Your task to perform on an android device: toggle javascript in the chrome app Image 0: 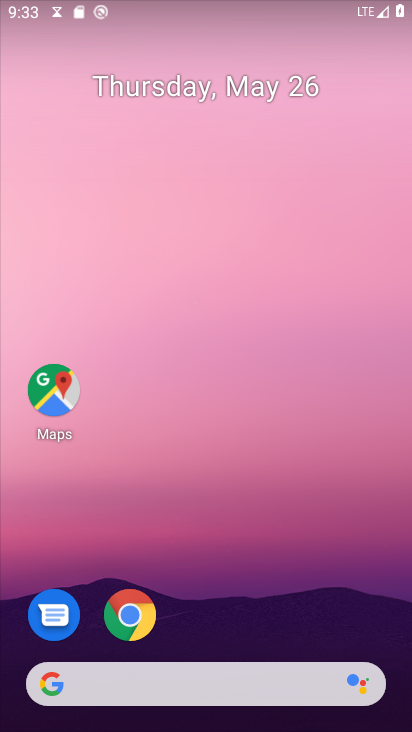
Step 0: click (129, 609)
Your task to perform on an android device: toggle javascript in the chrome app Image 1: 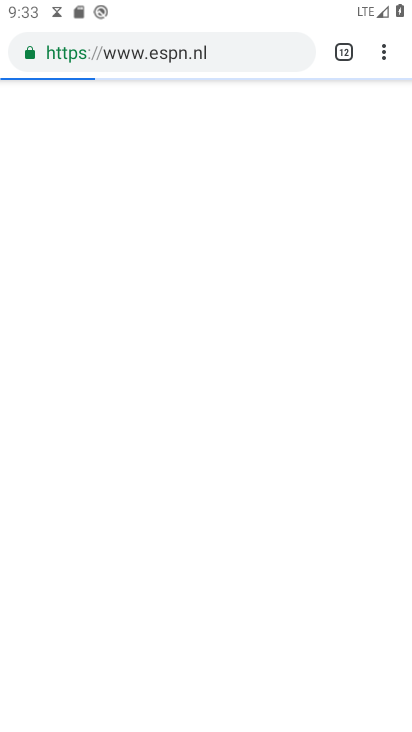
Step 1: click (379, 47)
Your task to perform on an android device: toggle javascript in the chrome app Image 2: 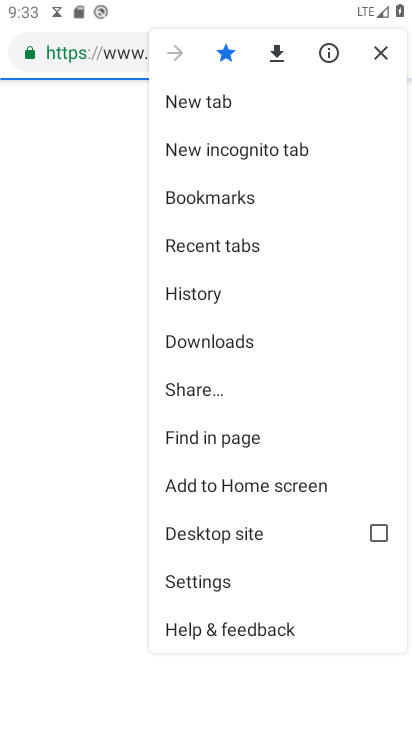
Step 2: click (220, 572)
Your task to perform on an android device: toggle javascript in the chrome app Image 3: 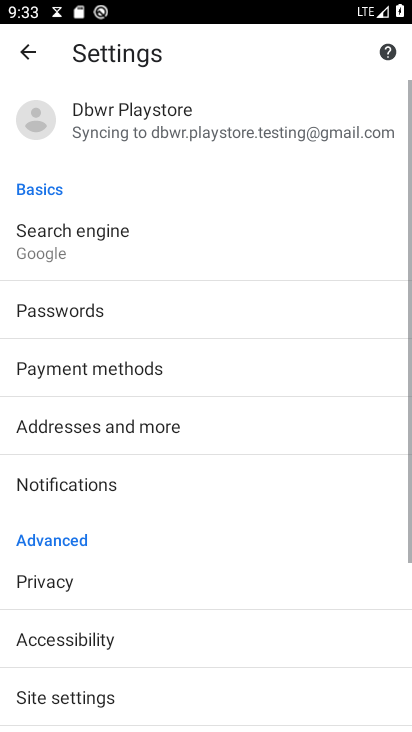
Step 3: drag from (191, 631) to (173, 533)
Your task to perform on an android device: toggle javascript in the chrome app Image 4: 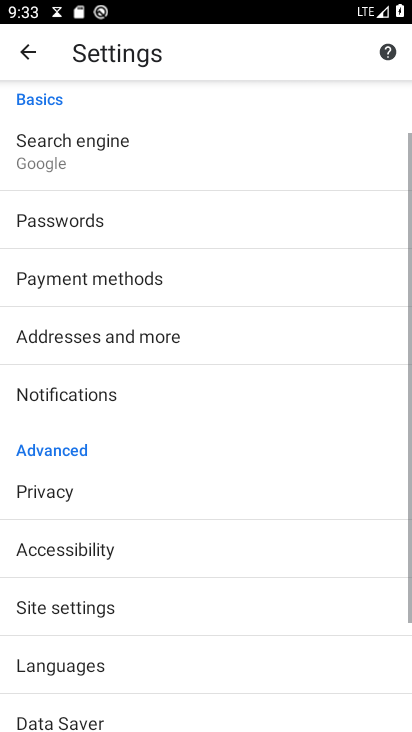
Step 4: click (87, 687)
Your task to perform on an android device: toggle javascript in the chrome app Image 5: 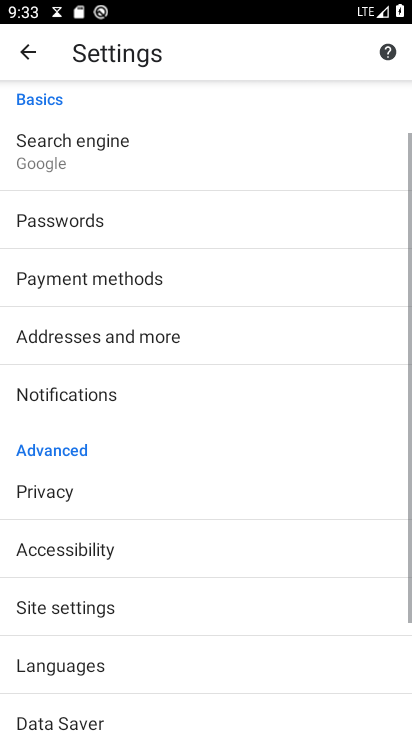
Step 5: click (118, 600)
Your task to perform on an android device: toggle javascript in the chrome app Image 6: 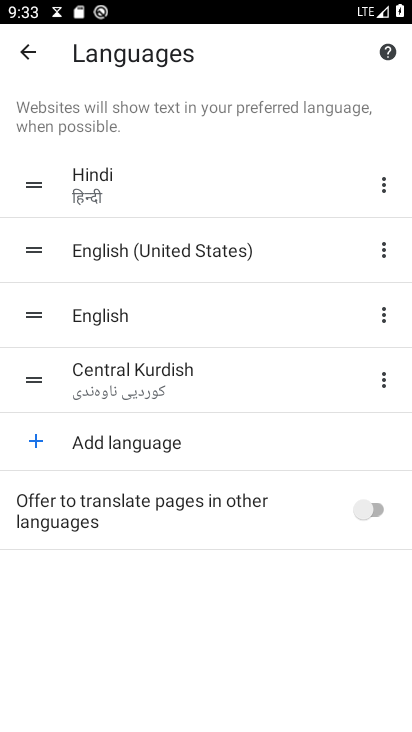
Step 6: click (21, 56)
Your task to perform on an android device: toggle javascript in the chrome app Image 7: 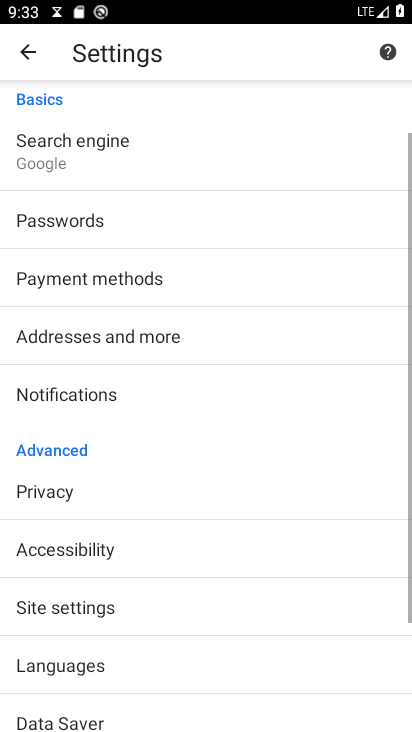
Step 7: click (116, 604)
Your task to perform on an android device: toggle javascript in the chrome app Image 8: 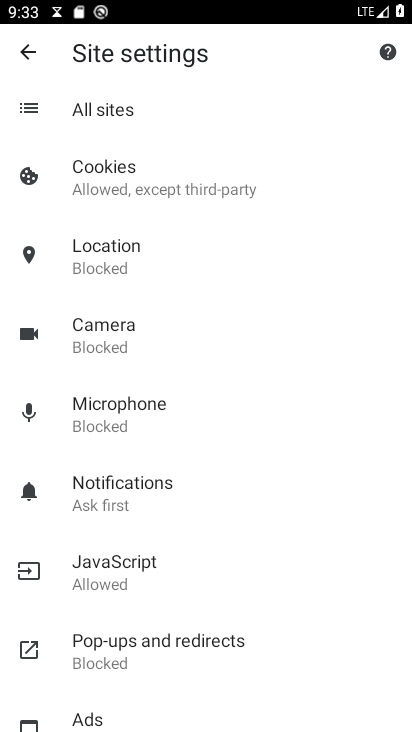
Step 8: click (121, 574)
Your task to perform on an android device: toggle javascript in the chrome app Image 9: 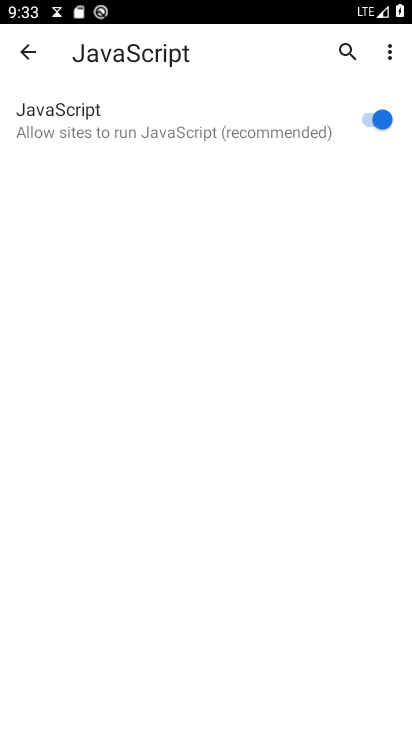
Step 9: click (367, 117)
Your task to perform on an android device: toggle javascript in the chrome app Image 10: 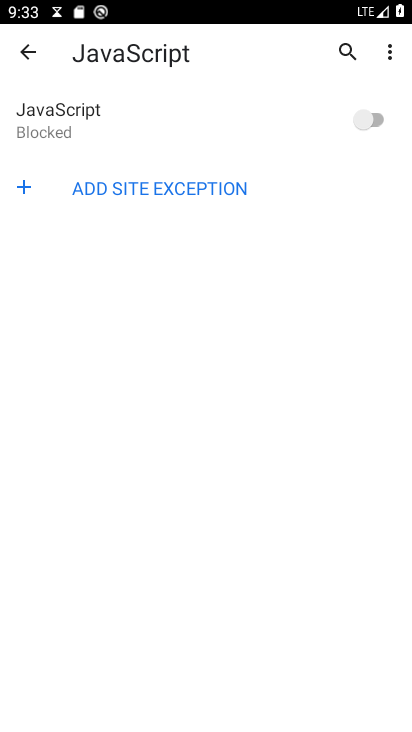
Step 10: task complete